Your task to perform on an android device: Go to calendar. Show me events next week Image 0: 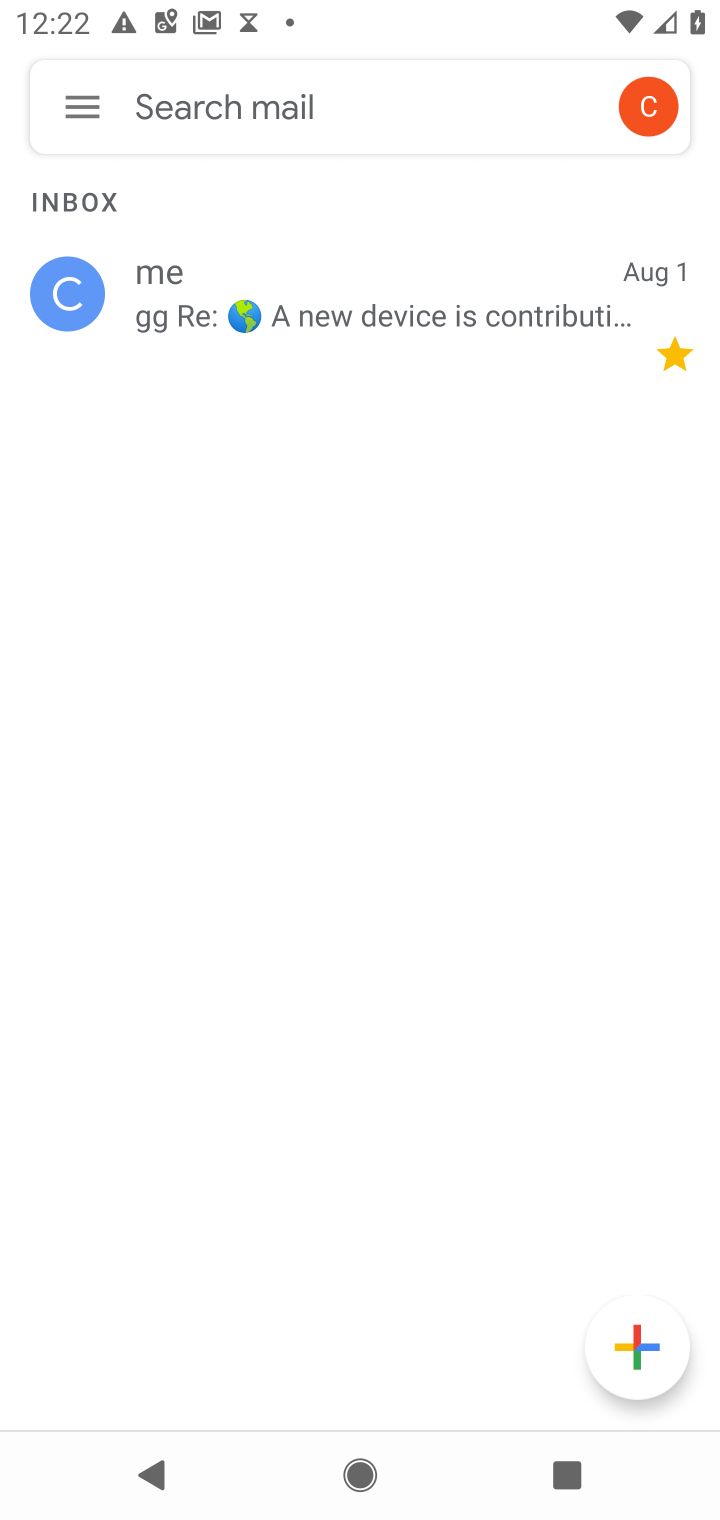
Step 0: press home button
Your task to perform on an android device: Go to calendar. Show me events next week Image 1: 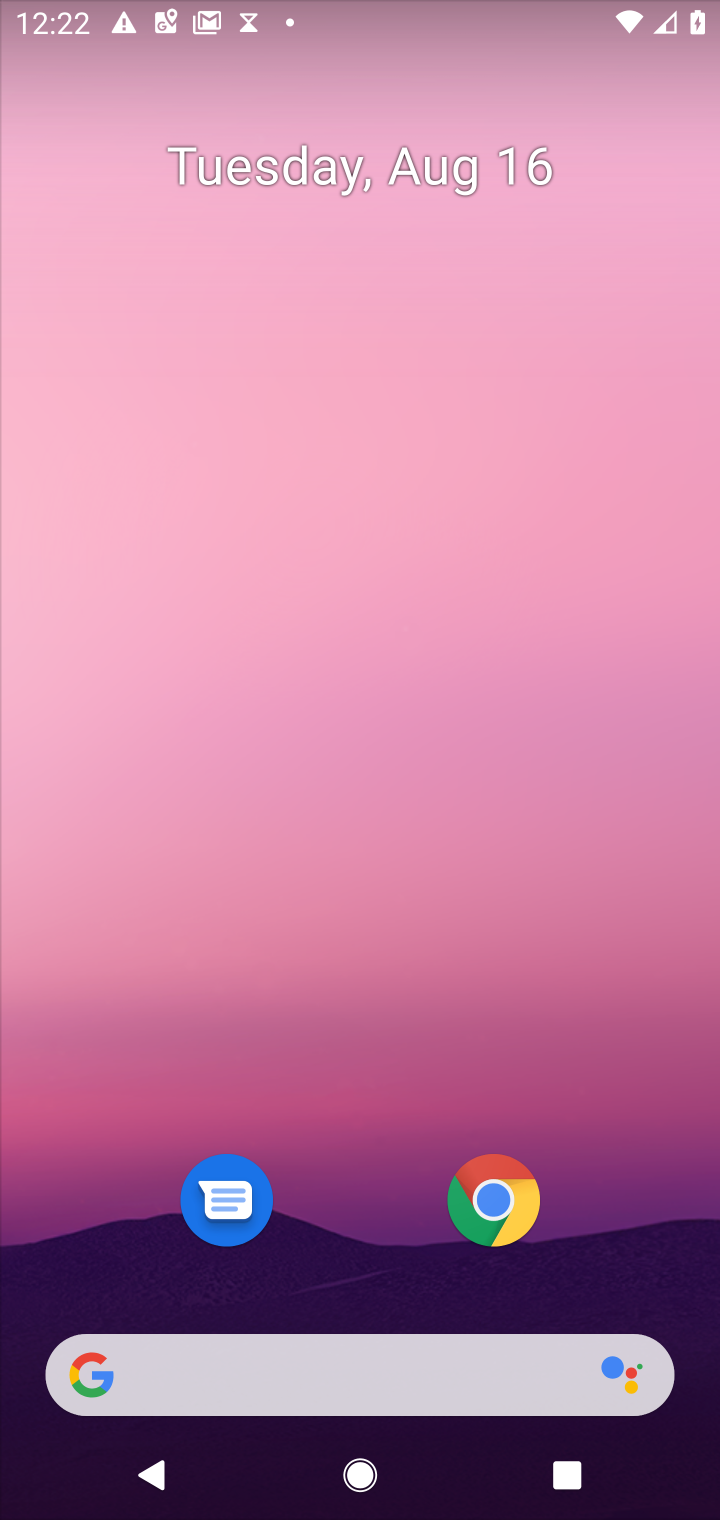
Step 1: drag from (374, 1207) to (315, 298)
Your task to perform on an android device: Go to calendar. Show me events next week Image 2: 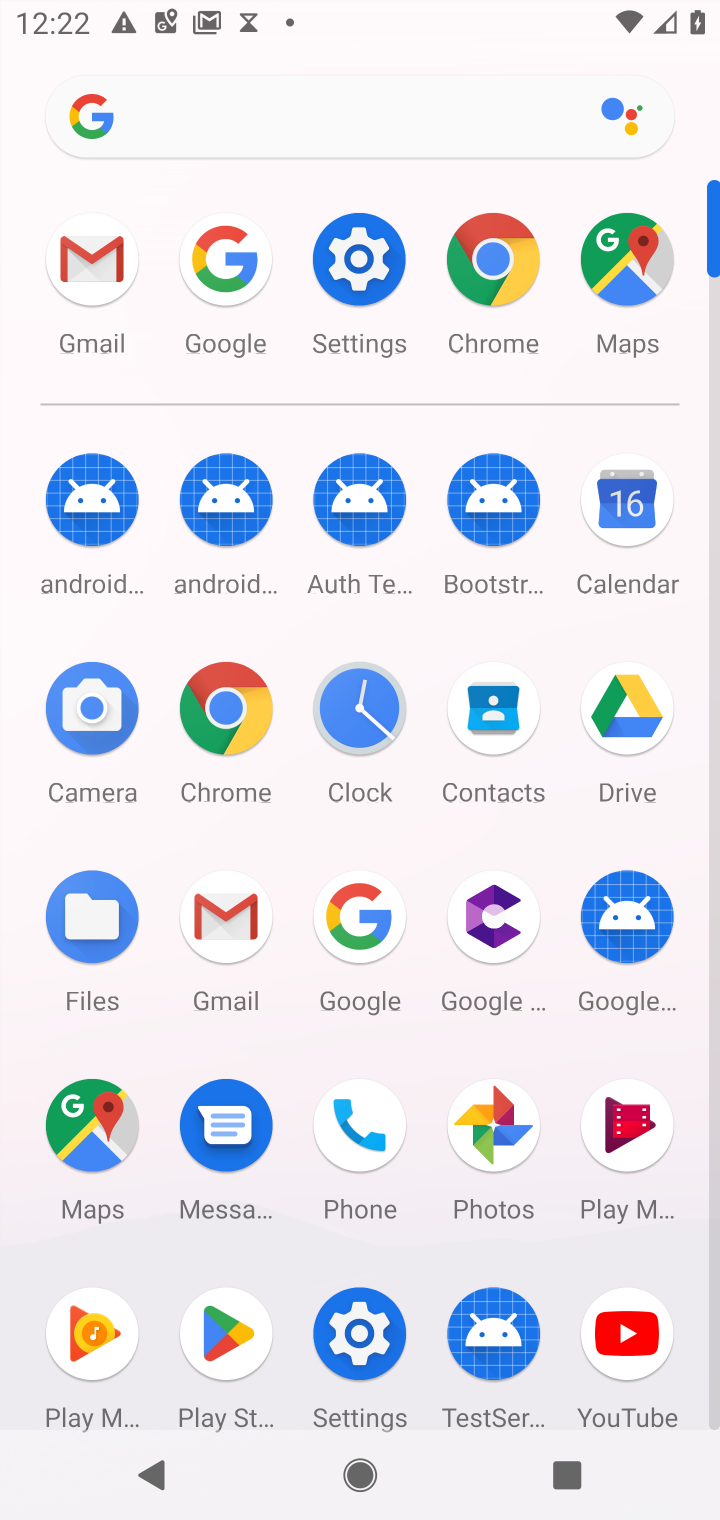
Step 2: click (592, 507)
Your task to perform on an android device: Go to calendar. Show me events next week Image 3: 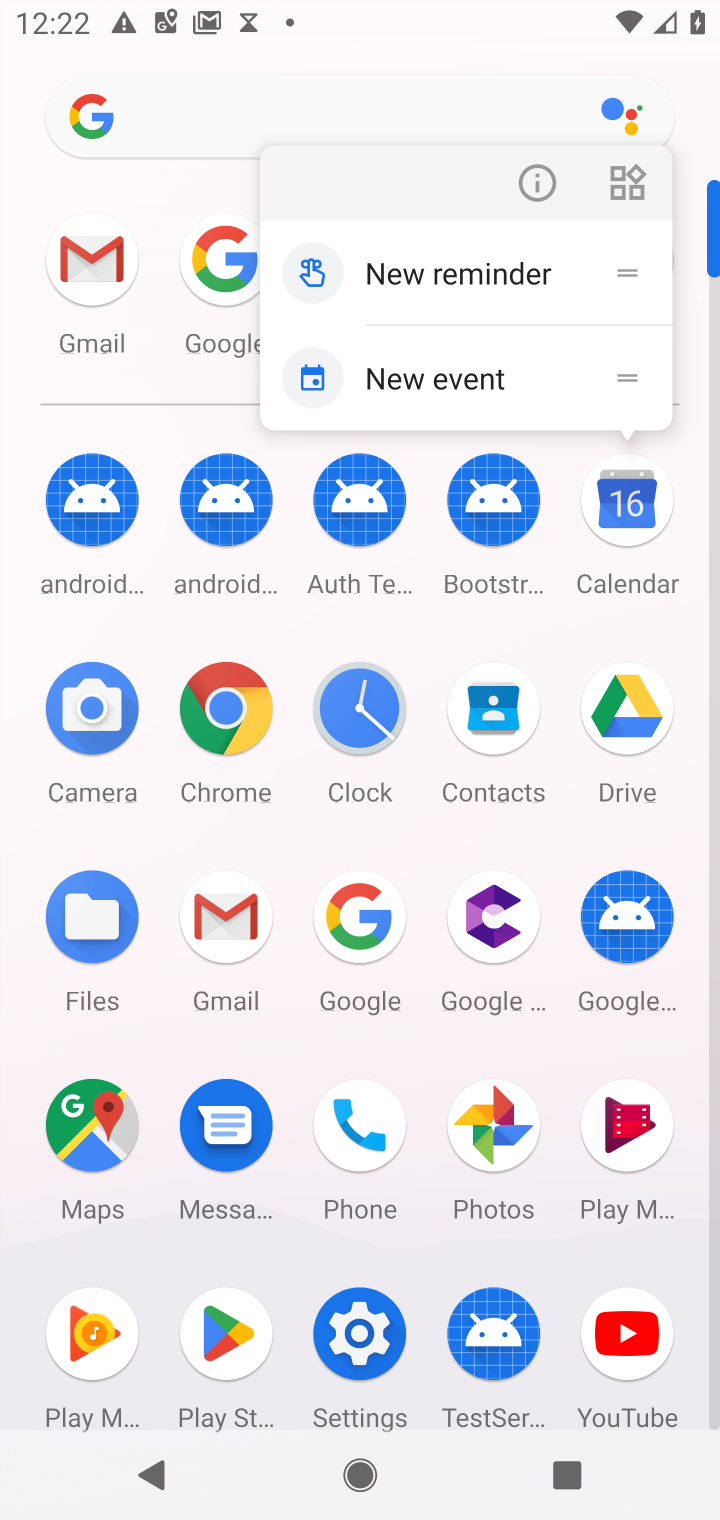
Step 3: click (592, 507)
Your task to perform on an android device: Go to calendar. Show me events next week Image 4: 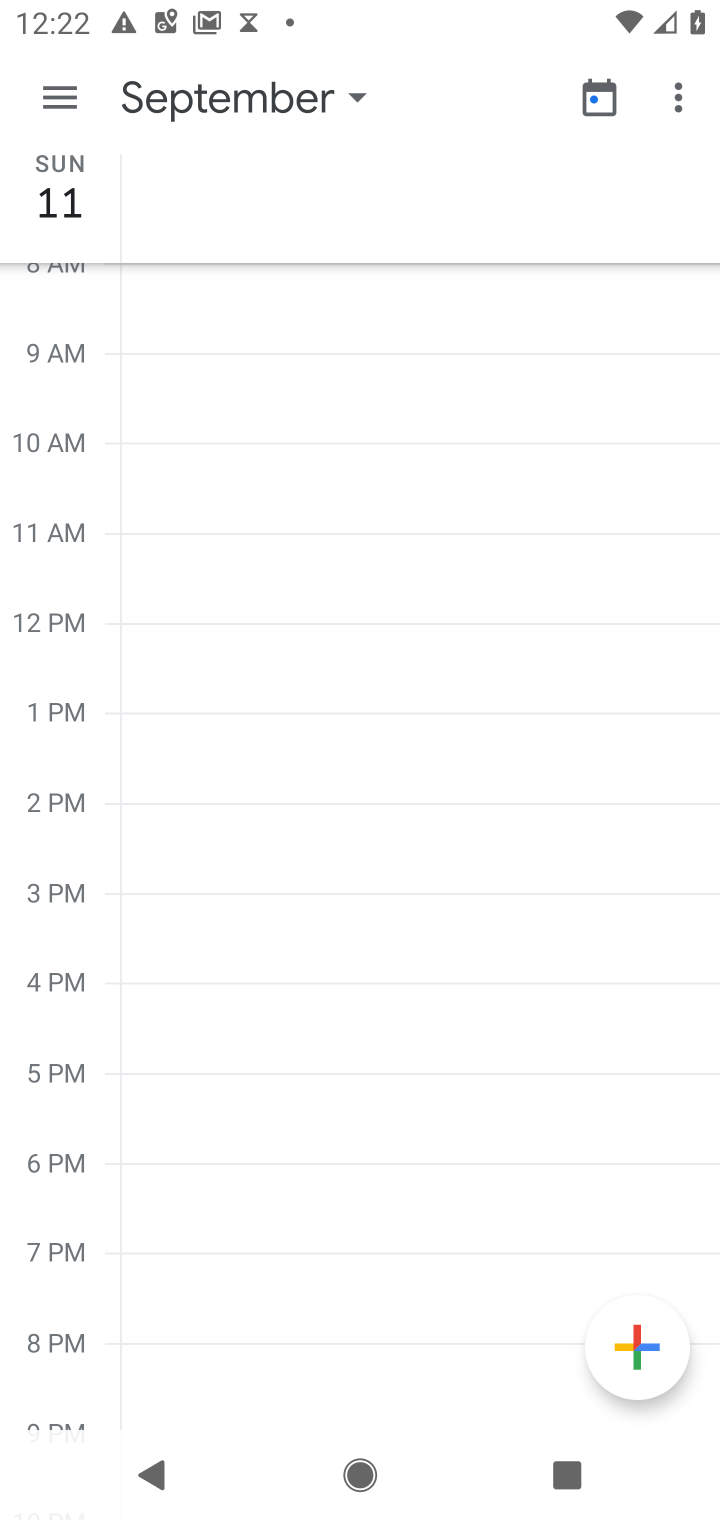
Step 4: click (294, 130)
Your task to perform on an android device: Go to calendar. Show me events next week Image 5: 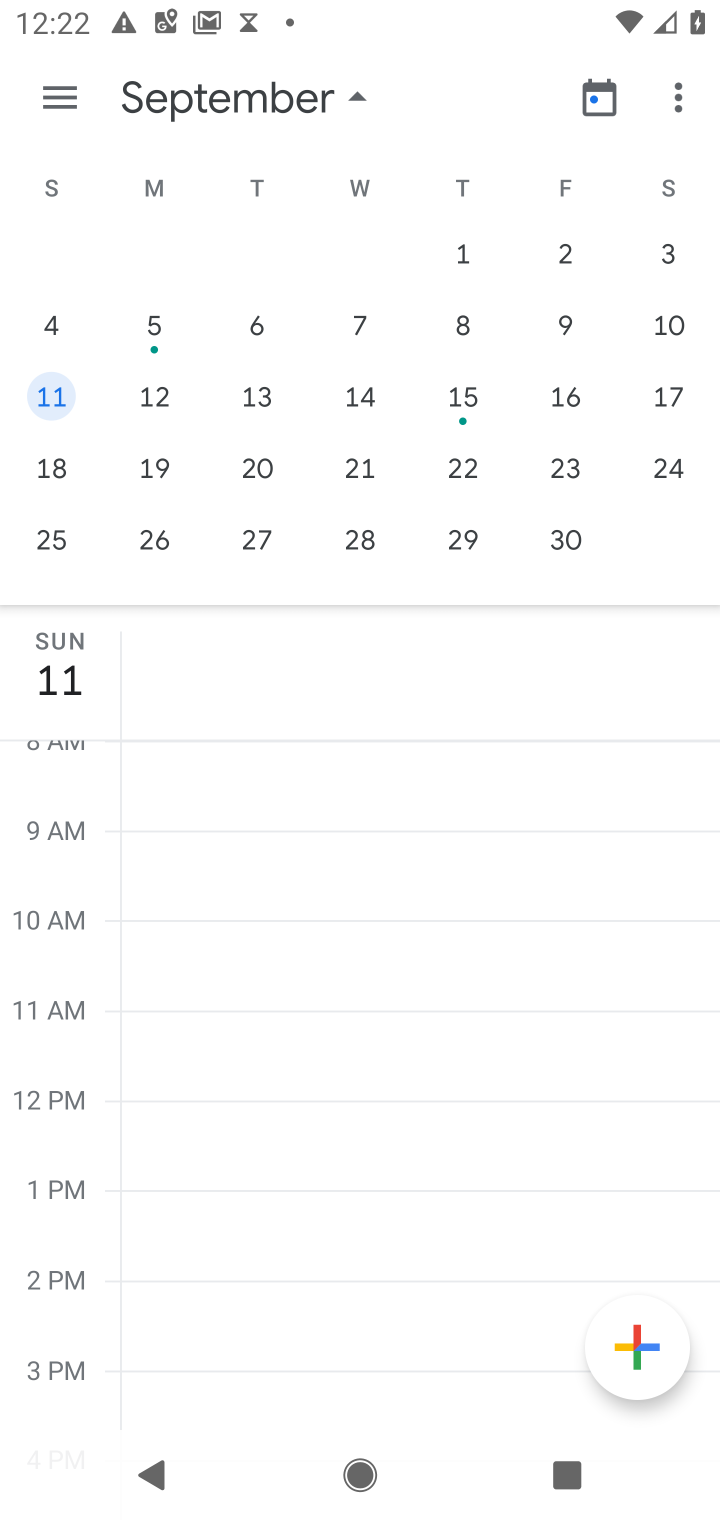
Step 5: drag from (88, 388) to (652, 332)
Your task to perform on an android device: Go to calendar. Show me events next week Image 6: 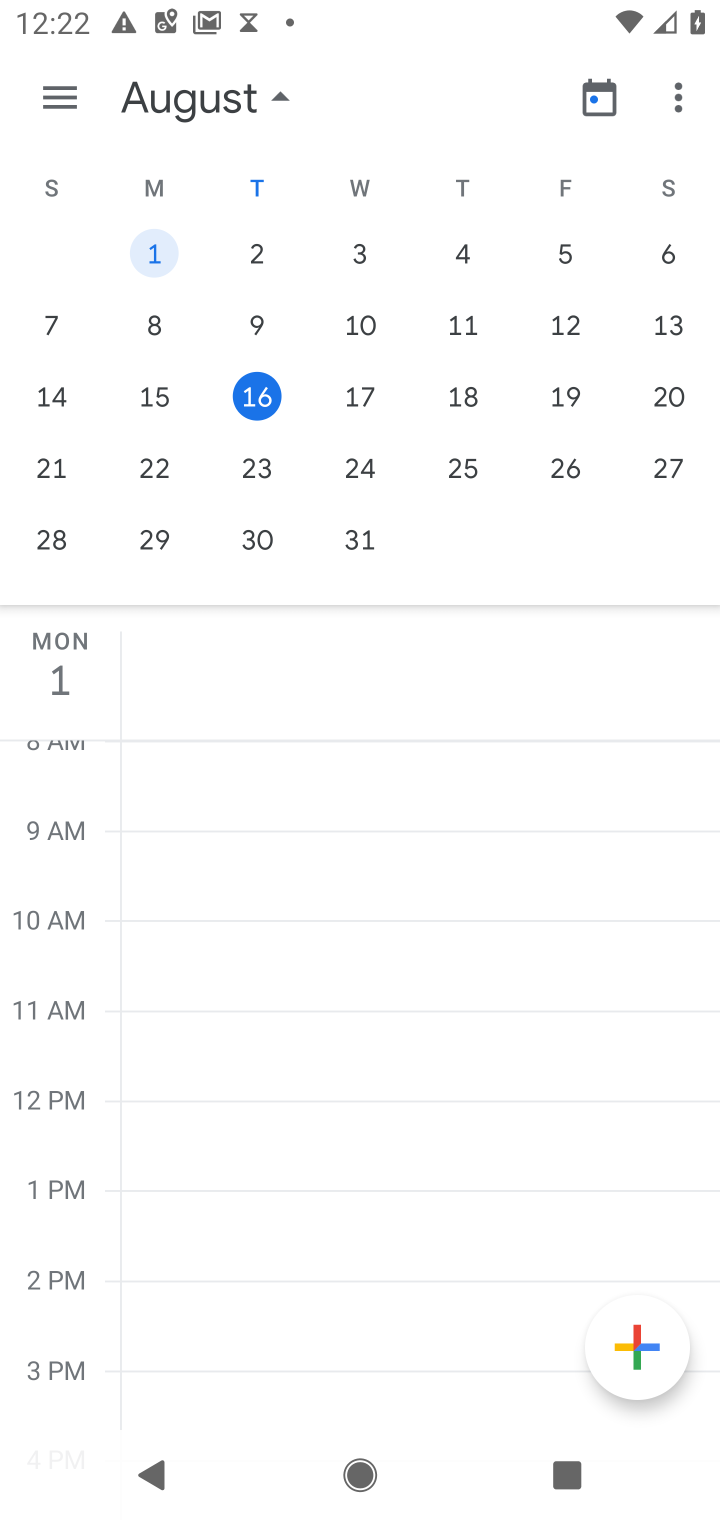
Step 6: click (70, 462)
Your task to perform on an android device: Go to calendar. Show me events next week Image 7: 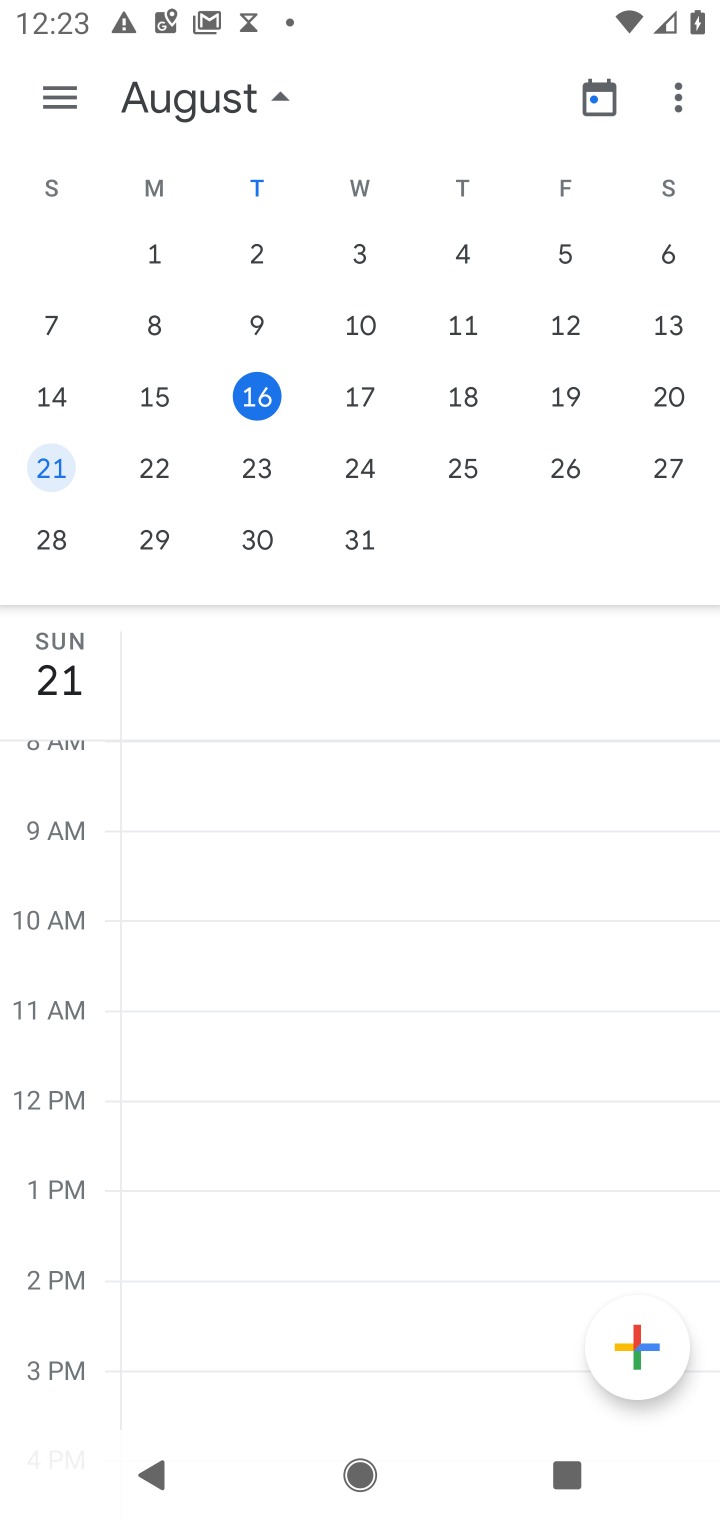
Step 7: task complete